Your task to perform on an android device: turn on showing notifications on the lock screen Image 0: 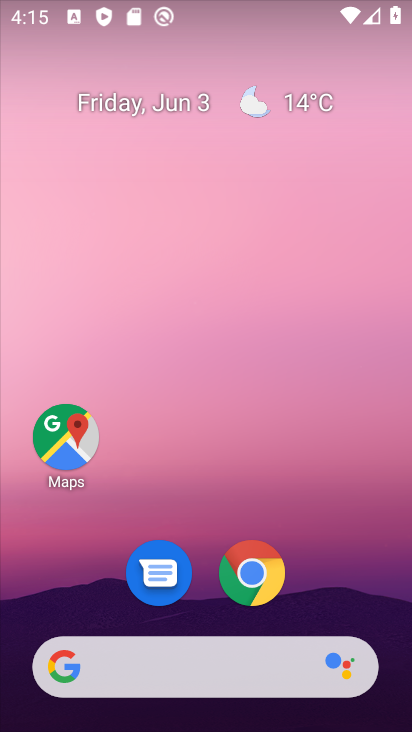
Step 0: press home button
Your task to perform on an android device: turn on showing notifications on the lock screen Image 1: 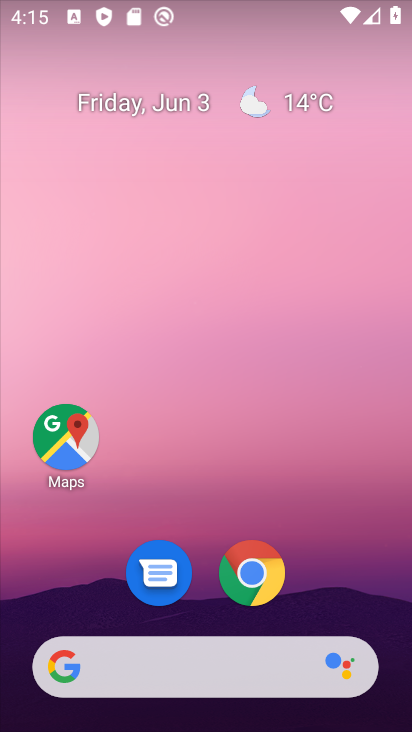
Step 1: drag from (285, 659) to (286, 48)
Your task to perform on an android device: turn on showing notifications on the lock screen Image 2: 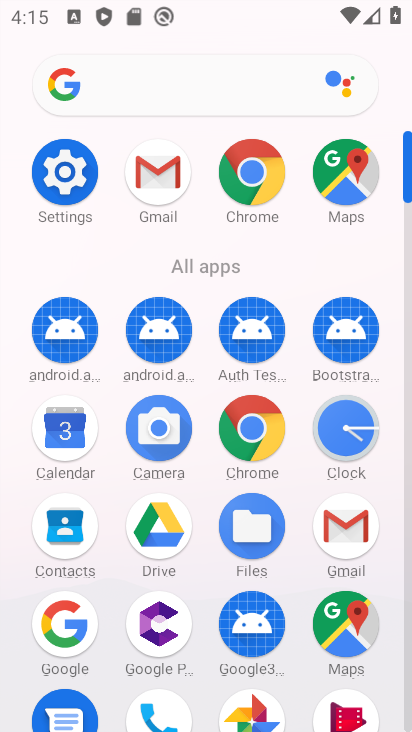
Step 2: click (72, 174)
Your task to perform on an android device: turn on showing notifications on the lock screen Image 3: 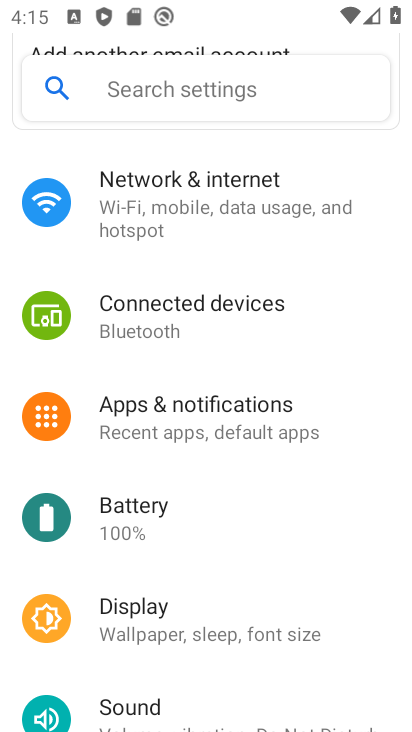
Step 3: click (315, 412)
Your task to perform on an android device: turn on showing notifications on the lock screen Image 4: 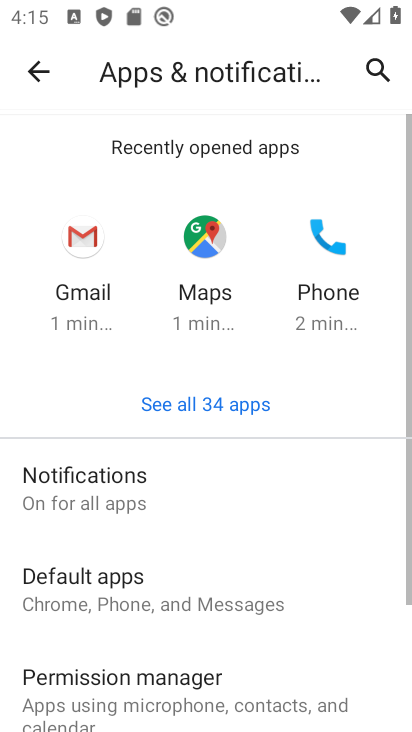
Step 4: click (146, 504)
Your task to perform on an android device: turn on showing notifications on the lock screen Image 5: 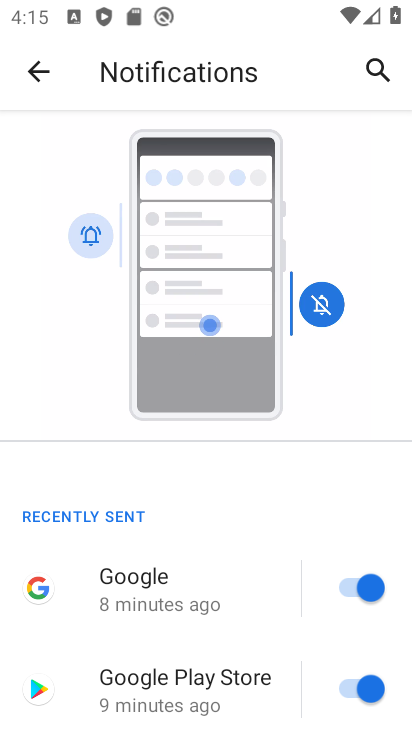
Step 5: drag from (289, 641) to (267, 233)
Your task to perform on an android device: turn on showing notifications on the lock screen Image 6: 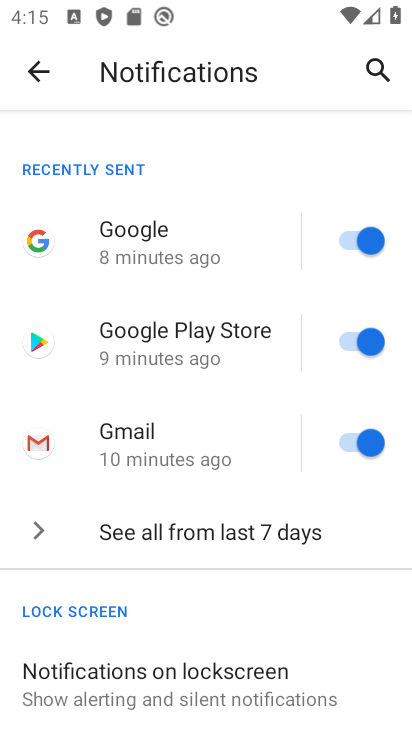
Step 6: drag from (264, 668) to (250, 148)
Your task to perform on an android device: turn on showing notifications on the lock screen Image 7: 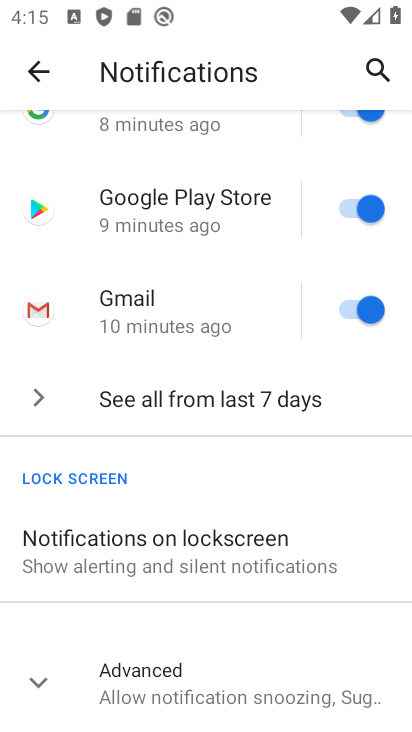
Step 7: drag from (225, 617) to (218, 230)
Your task to perform on an android device: turn on showing notifications on the lock screen Image 8: 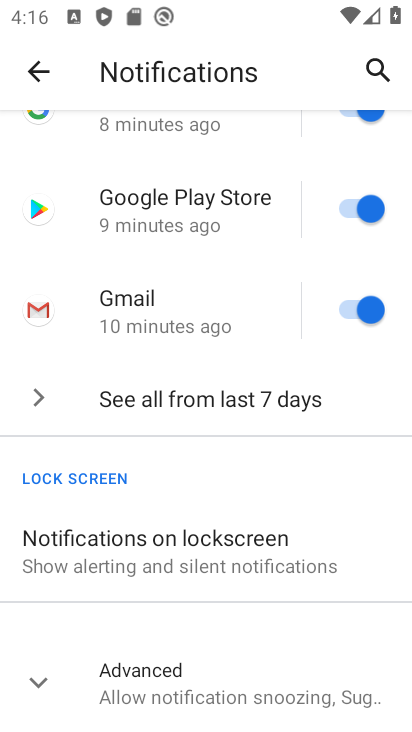
Step 8: click (184, 551)
Your task to perform on an android device: turn on showing notifications on the lock screen Image 9: 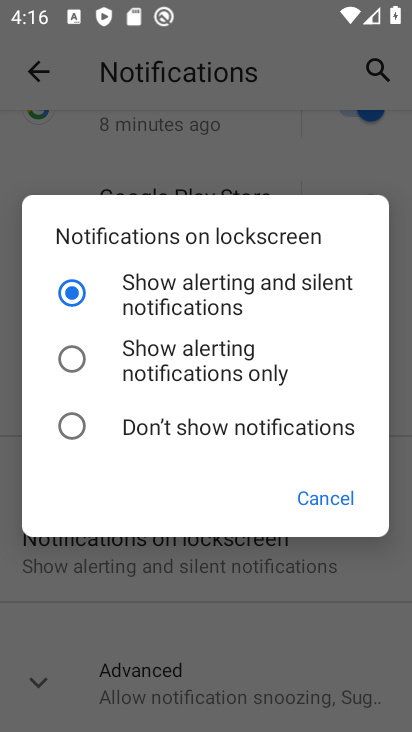
Step 9: task complete